Your task to perform on an android device: Open battery settings Image 0: 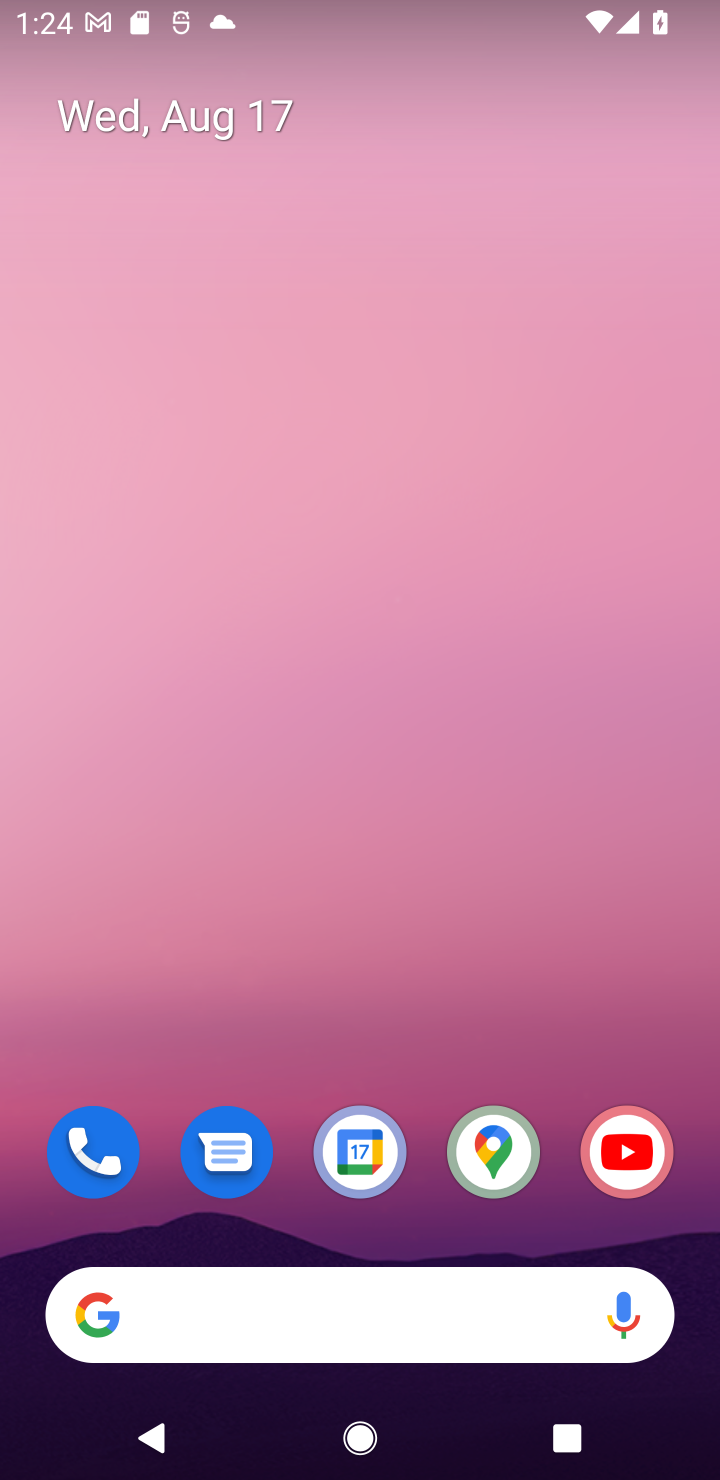
Step 0: drag from (695, 1227) to (354, 59)
Your task to perform on an android device: Open battery settings Image 1: 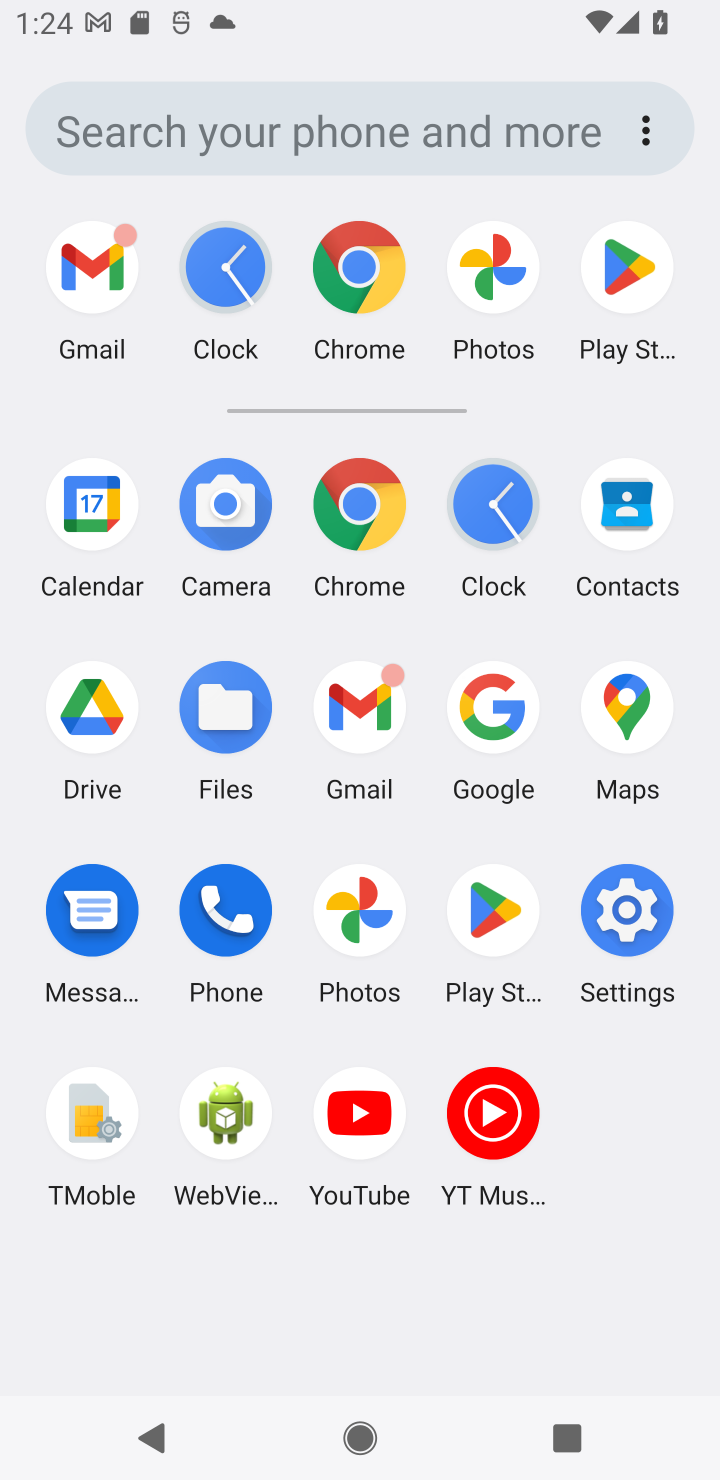
Step 1: click (640, 907)
Your task to perform on an android device: Open battery settings Image 2: 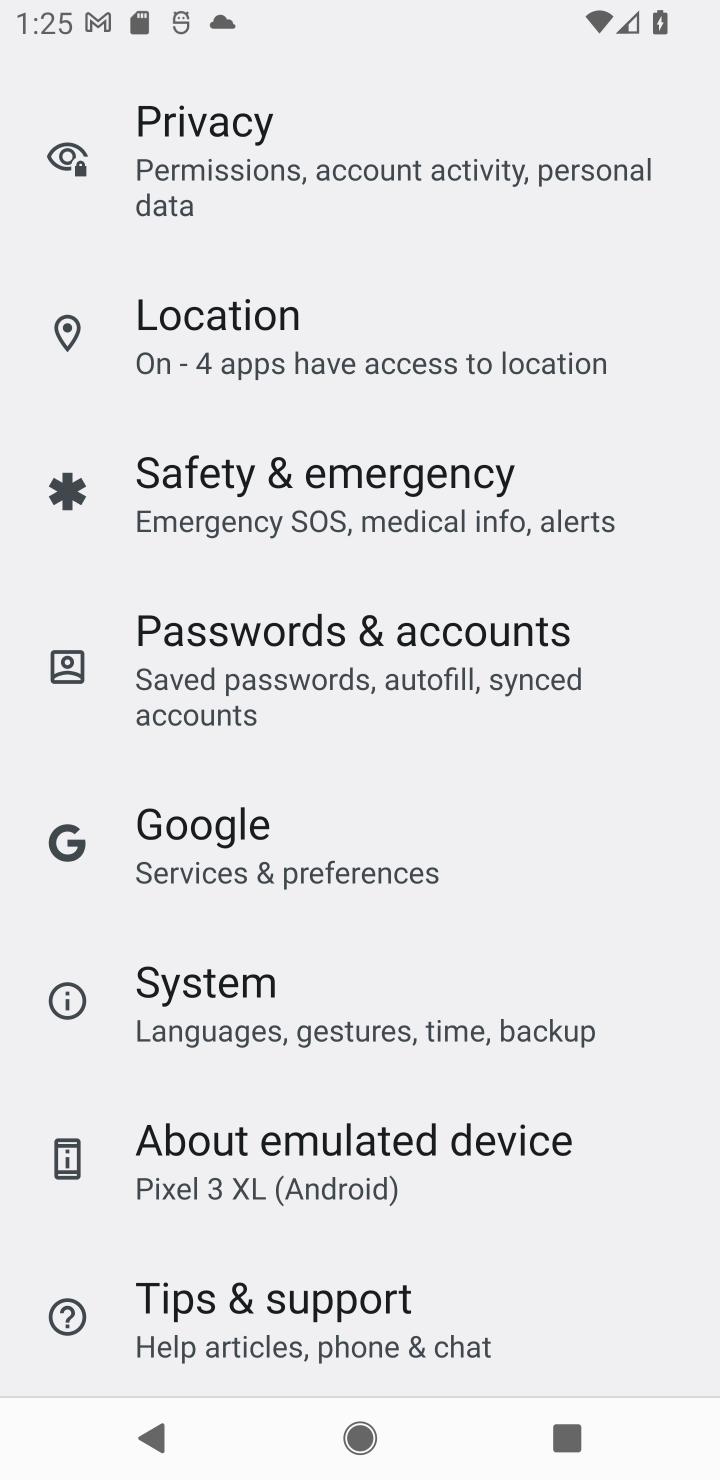
Step 2: task complete